Your task to perform on an android device: Go to Amazon Image 0: 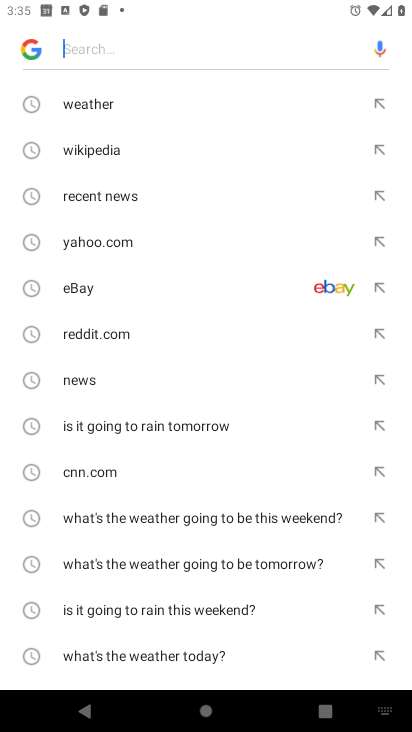
Step 0: press home button
Your task to perform on an android device: Go to Amazon Image 1: 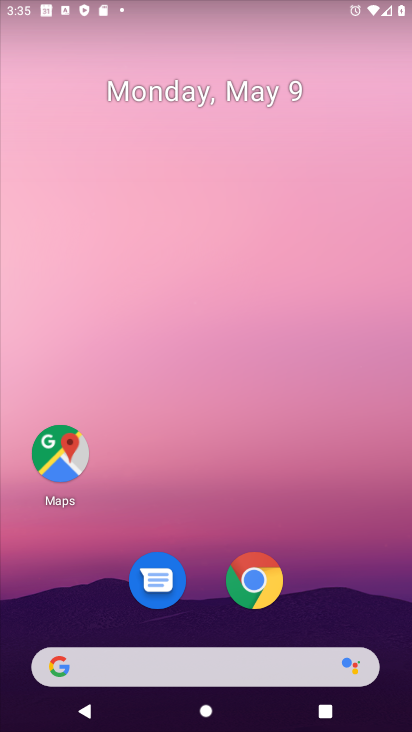
Step 1: click (263, 592)
Your task to perform on an android device: Go to Amazon Image 2: 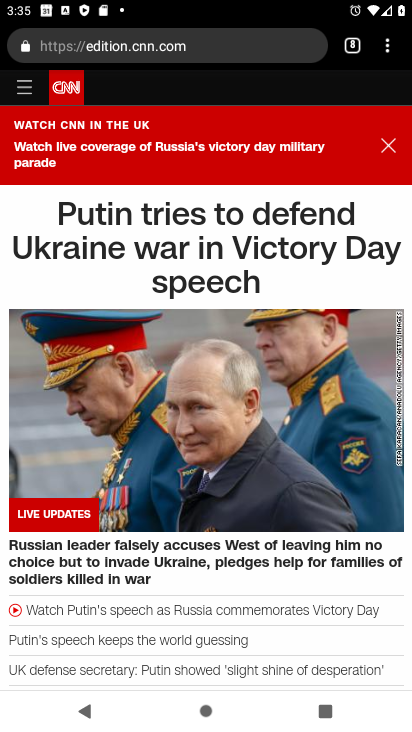
Step 2: click (347, 49)
Your task to perform on an android device: Go to Amazon Image 3: 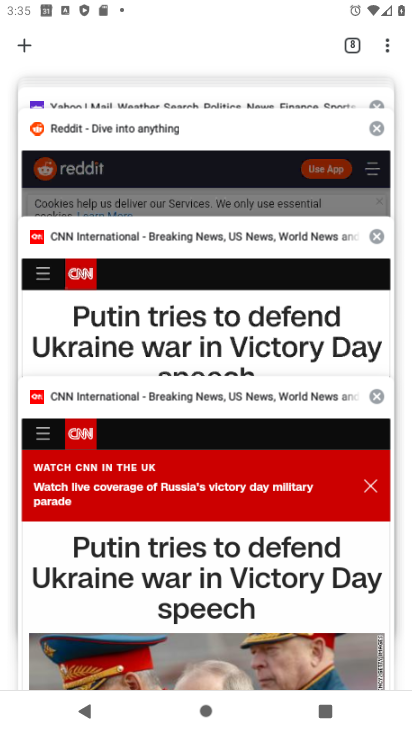
Step 3: click (21, 54)
Your task to perform on an android device: Go to Amazon Image 4: 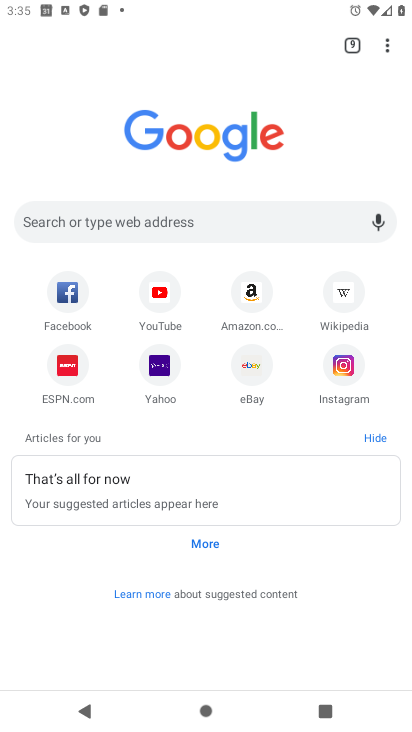
Step 4: click (250, 294)
Your task to perform on an android device: Go to Amazon Image 5: 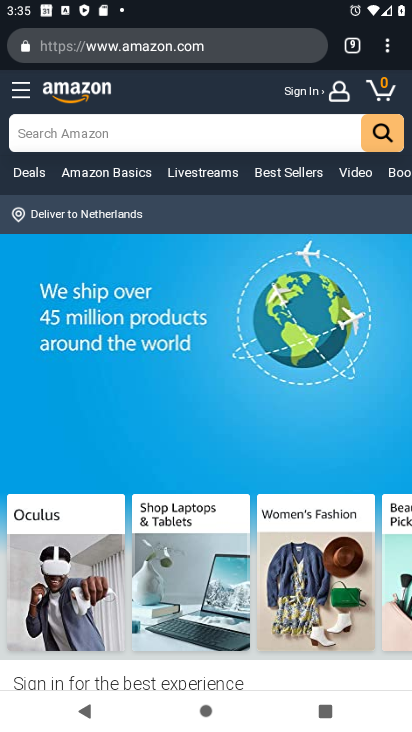
Step 5: task complete